Your task to perform on an android device: change the clock display to digital Image 0: 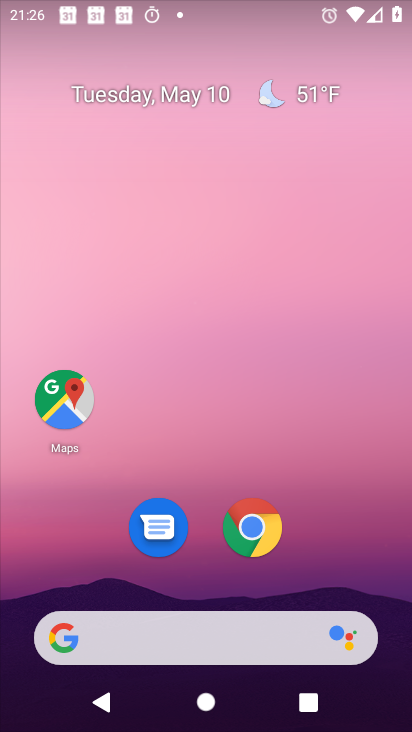
Step 0: drag from (236, 583) to (185, 0)
Your task to perform on an android device: change the clock display to digital Image 1: 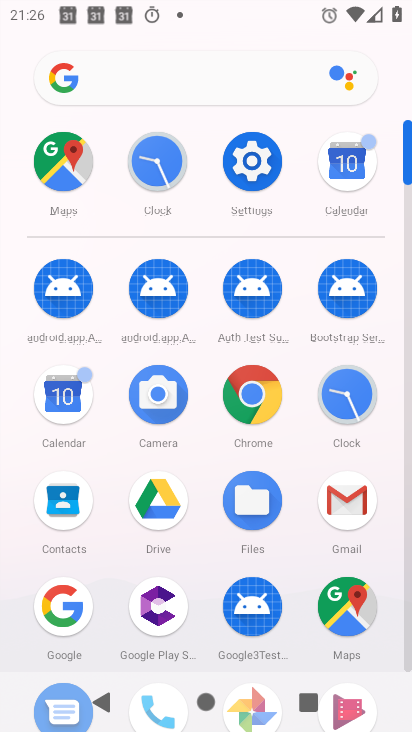
Step 1: click (332, 400)
Your task to perform on an android device: change the clock display to digital Image 2: 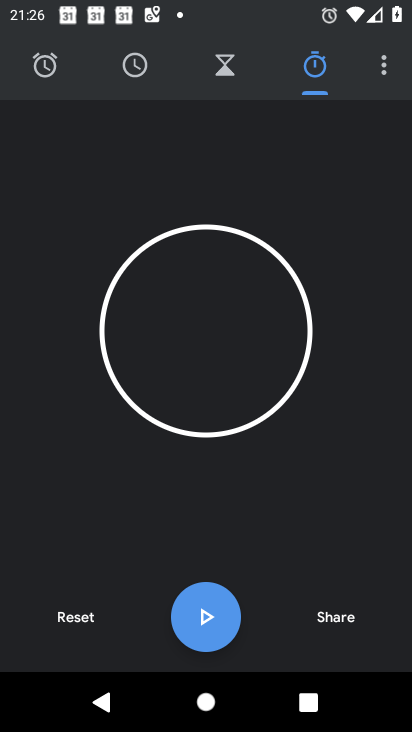
Step 2: click (385, 68)
Your task to perform on an android device: change the clock display to digital Image 3: 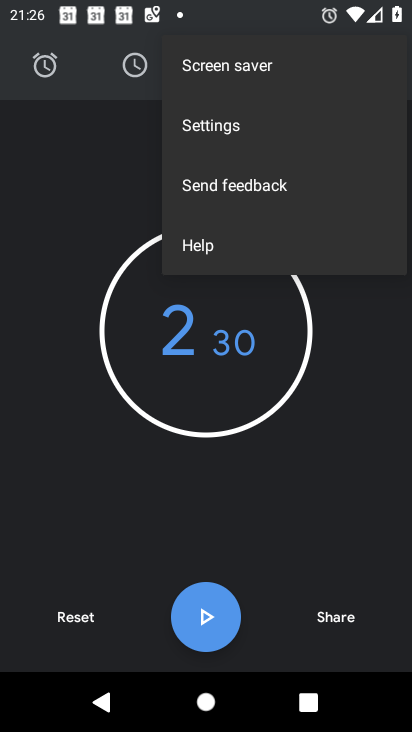
Step 3: click (209, 126)
Your task to perform on an android device: change the clock display to digital Image 4: 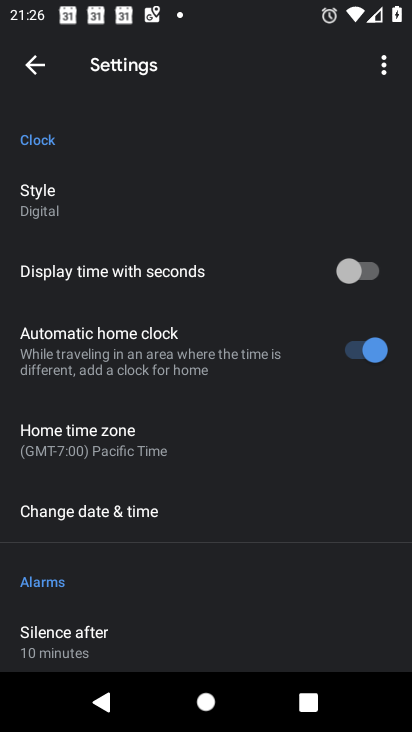
Step 4: click (48, 211)
Your task to perform on an android device: change the clock display to digital Image 5: 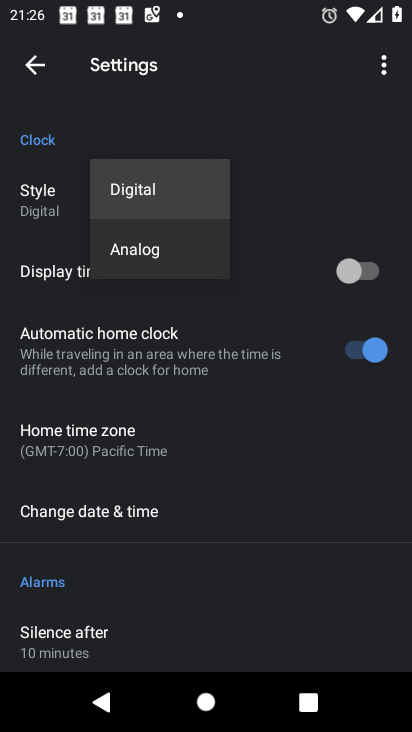
Step 5: click (183, 182)
Your task to perform on an android device: change the clock display to digital Image 6: 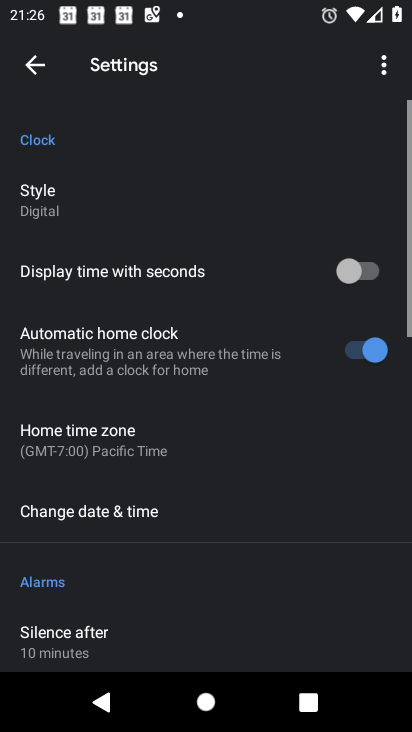
Step 6: task complete